Your task to perform on an android device: Go to notification settings Image 0: 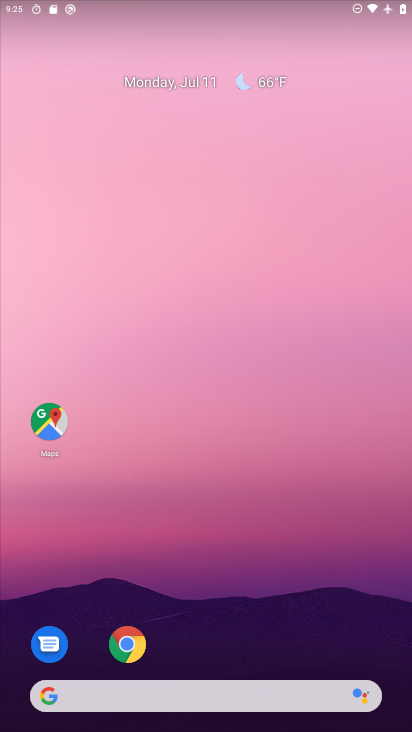
Step 0: drag from (328, 515) to (264, 80)
Your task to perform on an android device: Go to notification settings Image 1: 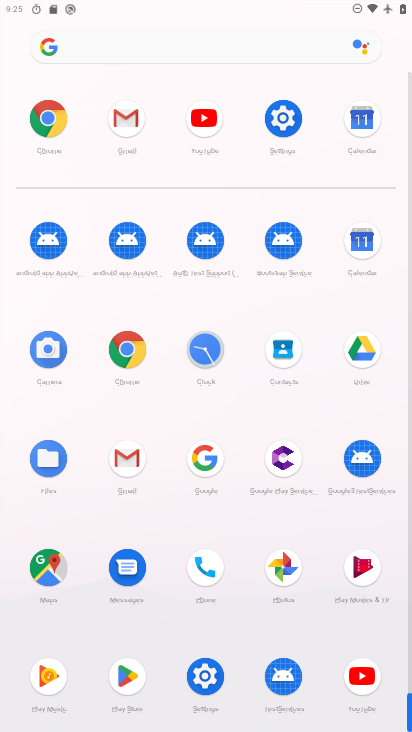
Step 1: click (281, 106)
Your task to perform on an android device: Go to notification settings Image 2: 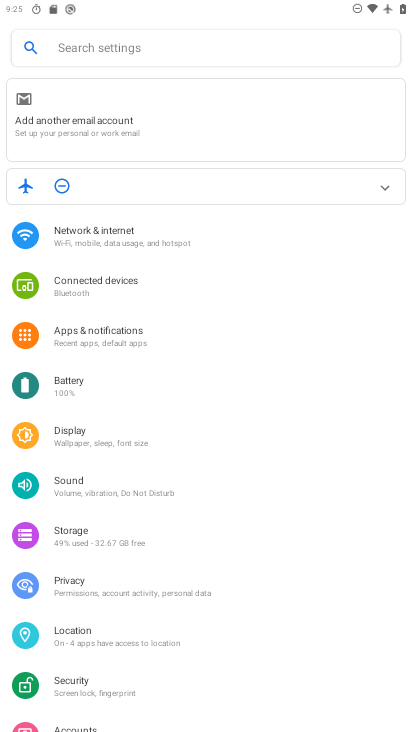
Step 2: click (141, 338)
Your task to perform on an android device: Go to notification settings Image 3: 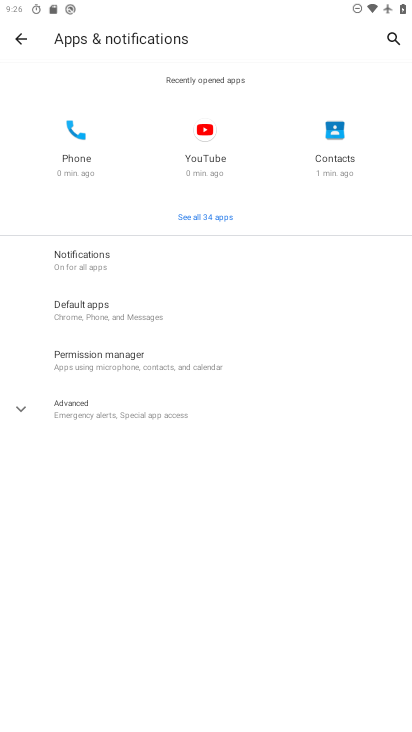
Step 3: task complete